Your task to perform on an android device: Open Android settings Image 0: 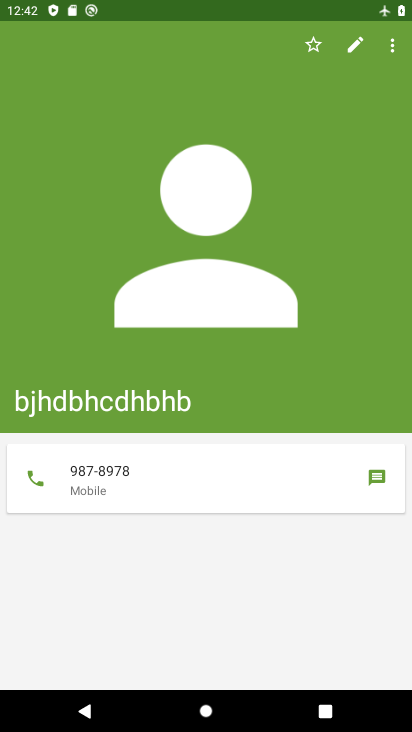
Step 0: press home button
Your task to perform on an android device: Open Android settings Image 1: 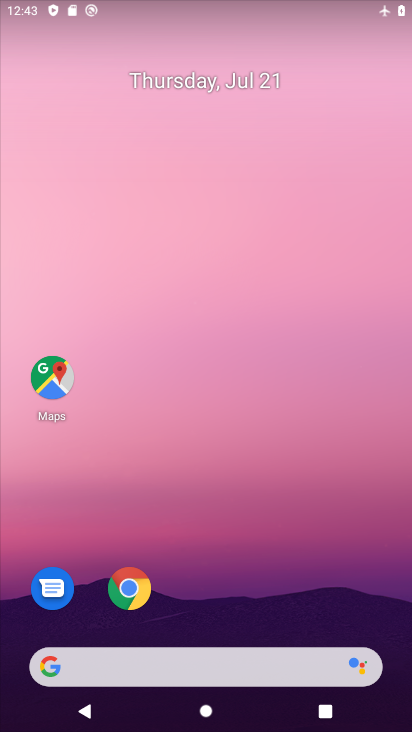
Step 1: drag from (367, 585) to (329, 290)
Your task to perform on an android device: Open Android settings Image 2: 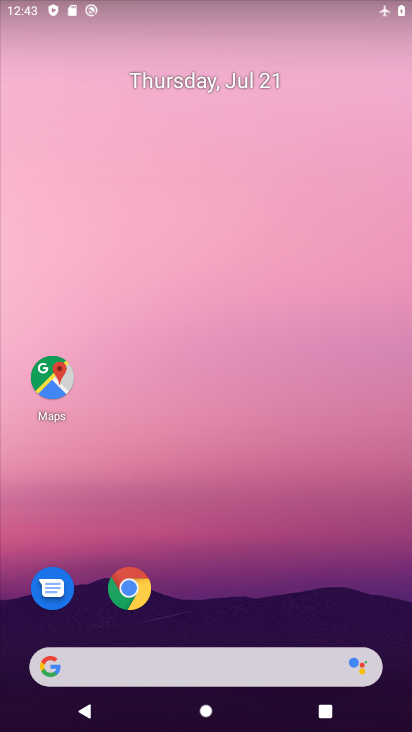
Step 2: drag from (233, 270) to (294, 162)
Your task to perform on an android device: Open Android settings Image 3: 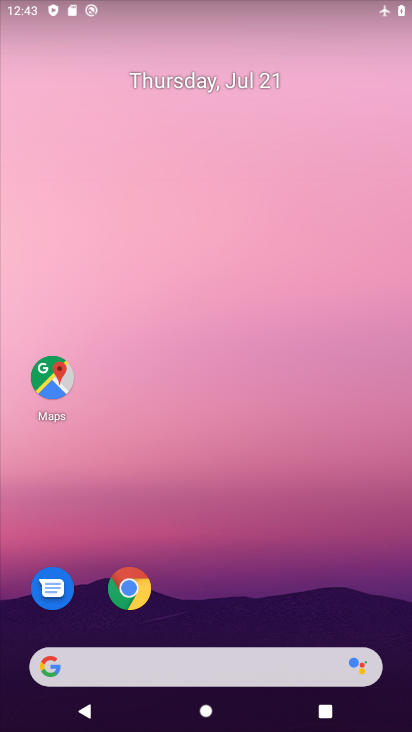
Step 3: drag from (400, 675) to (276, 67)
Your task to perform on an android device: Open Android settings Image 4: 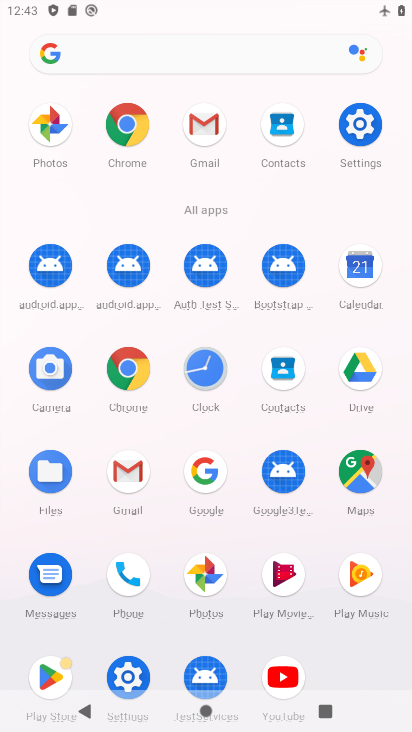
Step 4: click (344, 109)
Your task to perform on an android device: Open Android settings Image 5: 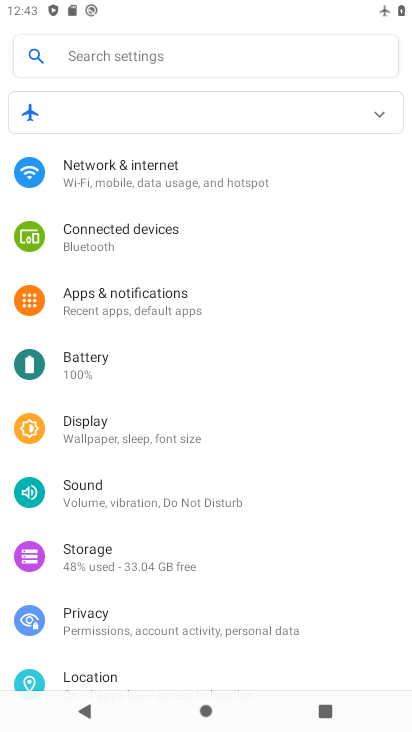
Step 5: task complete